Your task to perform on an android device: check the backup settings in the google photos Image 0: 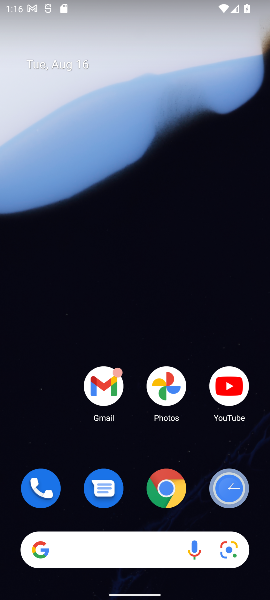
Step 0: drag from (103, 301) to (139, 51)
Your task to perform on an android device: check the backup settings in the google photos Image 1: 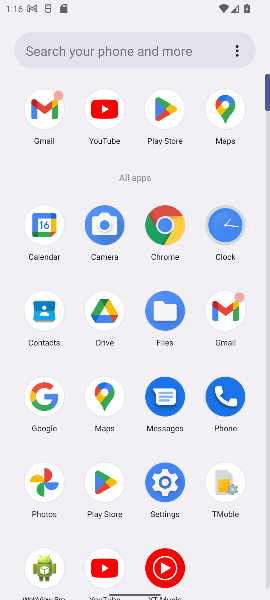
Step 1: click (36, 477)
Your task to perform on an android device: check the backup settings in the google photos Image 2: 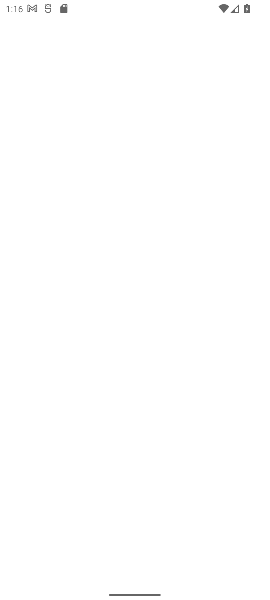
Step 2: task complete